Your task to perform on an android device: turn vacation reply on in the gmail app Image 0: 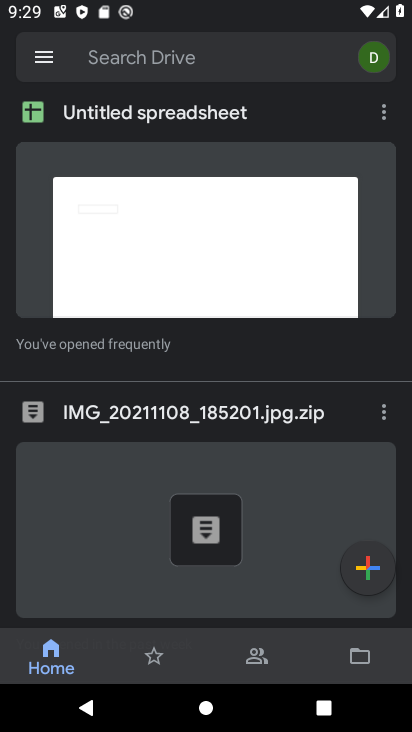
Step 0: press home button
Your task to perform on an android device: turn vacation reply on in the gmail app Image 1: 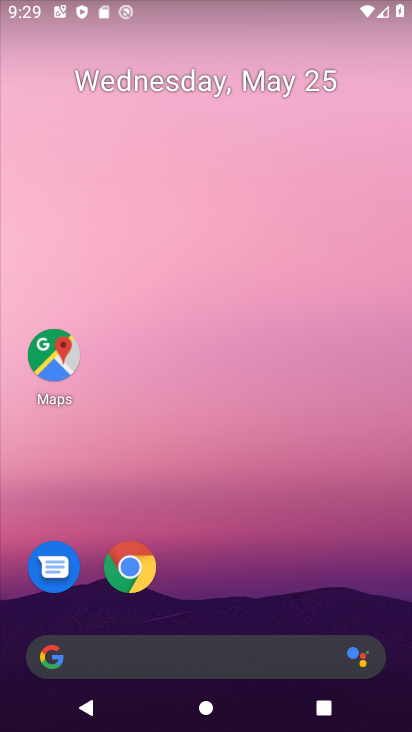
Step 1: drag from (237, 565) to (296, 86)
Your task to perform on an android device: turn vacation reply on in the gmail app Image 2: 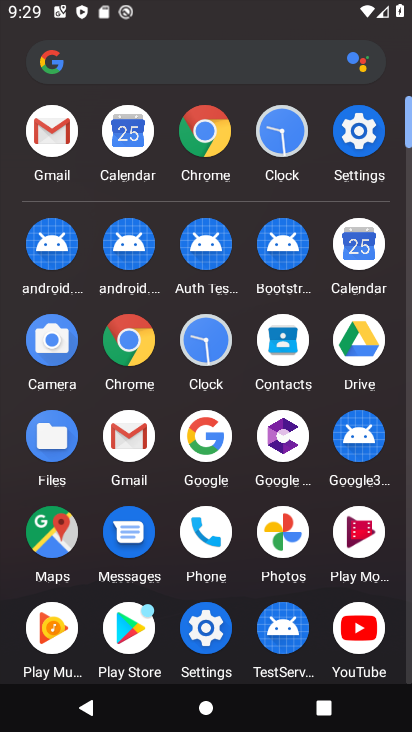
Step 2: click (125, 427)
Your task to perform on an android device: turn vacation reply on in the gmail app Image 3: 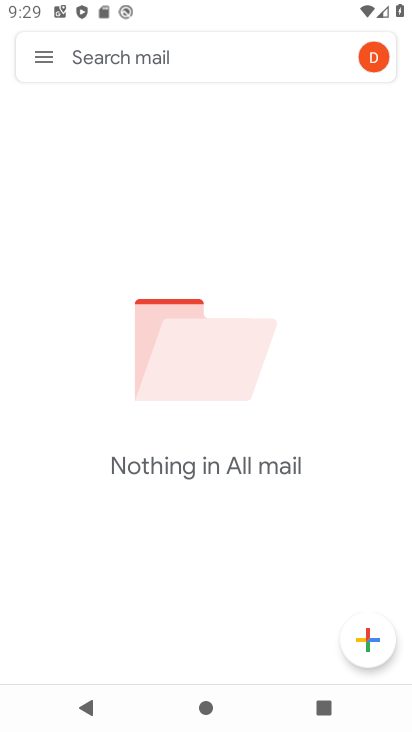
Step 3: task complete